Your task to perform on an android device: open wifi settings Image 0: 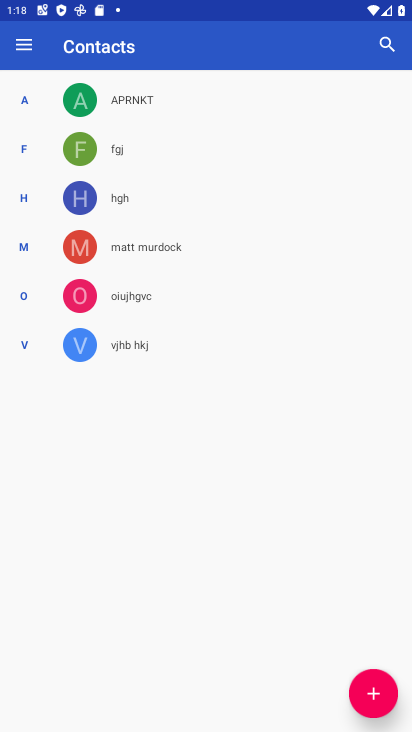
Step 0: press home button
Your task to perform on an android device: open wifi settings Image 1: 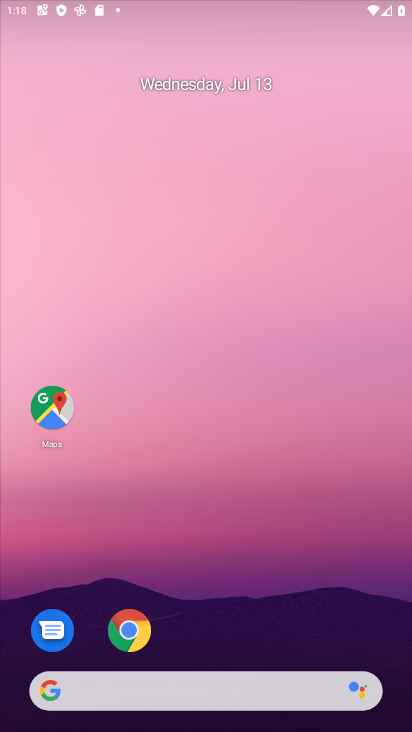
Step 1: drag from (388, 650) to (222, 27)
Your task to perform on an android device: open wifi settings Image 2: 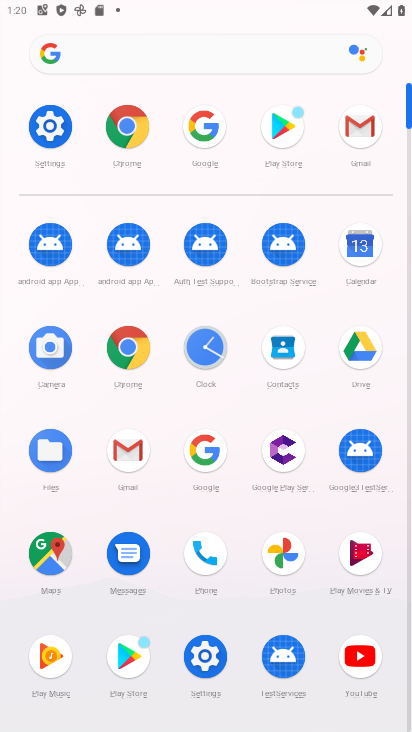
Step 2: click (196, 662)
Your task to perform on an android device: open wifi settings Image 3: 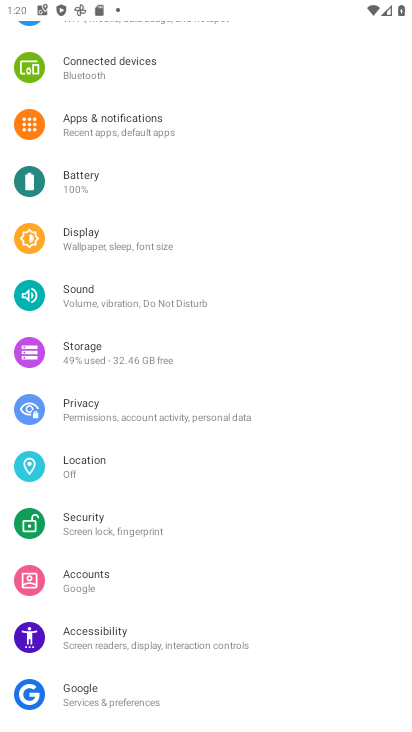
Step 3: drag from (118, 103) to (165, 644)
Your task to perform on an android device: open wifi settings Image 4: 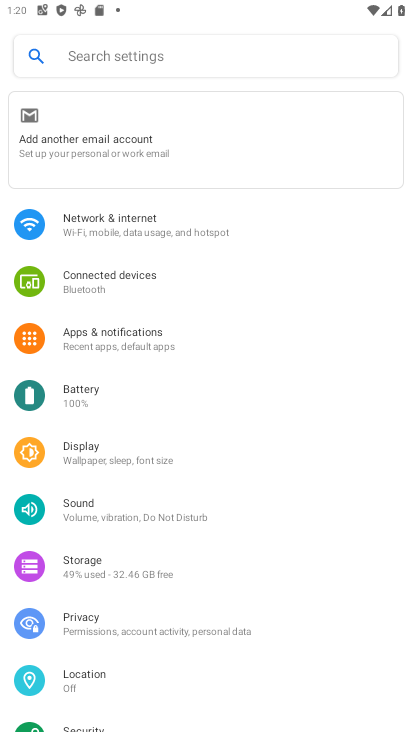
Step 4: click (89, 235)
Your task to perform on an android device: open wifi settings Image 5: 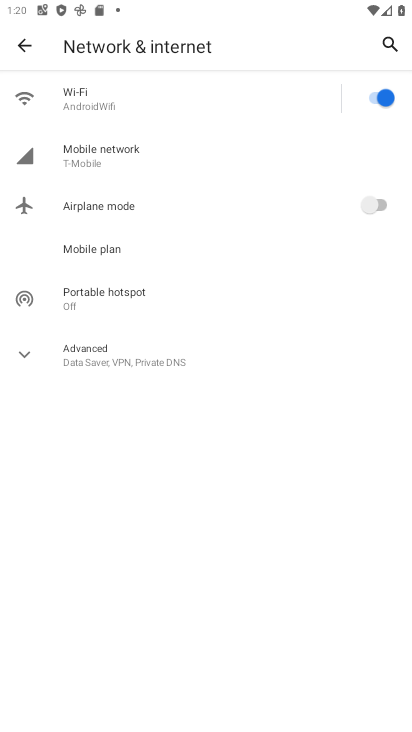
Step 5: click (117, 95)
Your task to perform on an android device: open wifi settings Image 6: 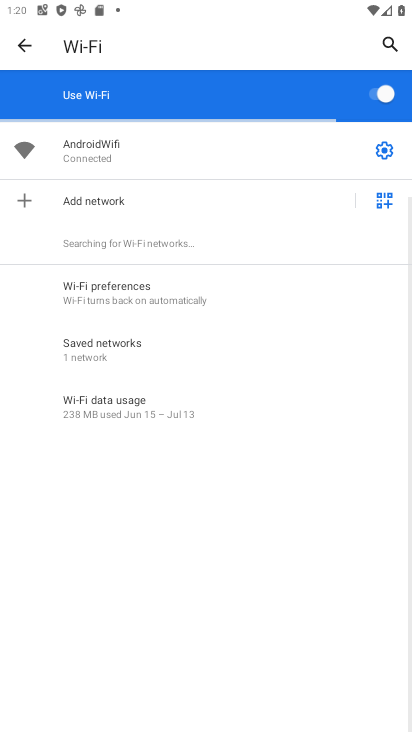
Step 6: task complete